Your task to perform on an android device: add a contact in the contacts app Image 0: 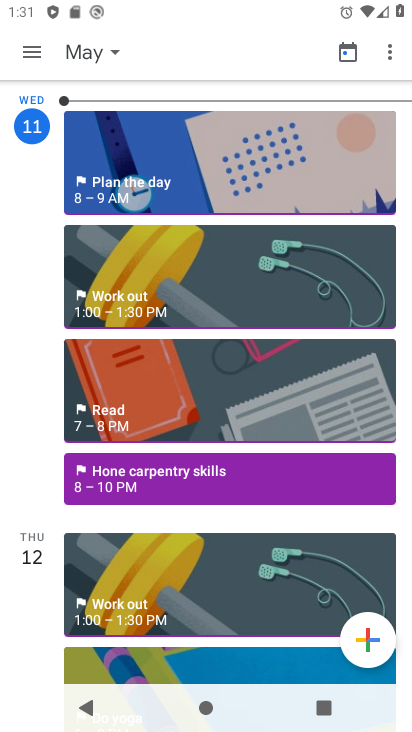
Step 0: press home button
Your task to perform on an android device: add a contact in the contacts app Image 1: 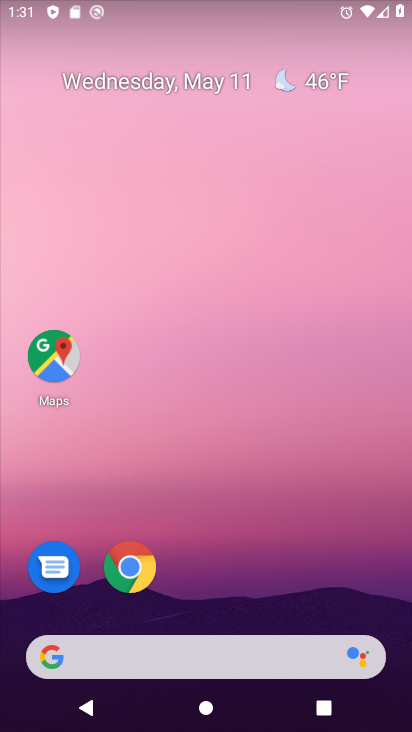
Step 1: drag from (227, 624) to (142, 7)
Your task to perform on an android device: add a contact in the contacts app Image 2: 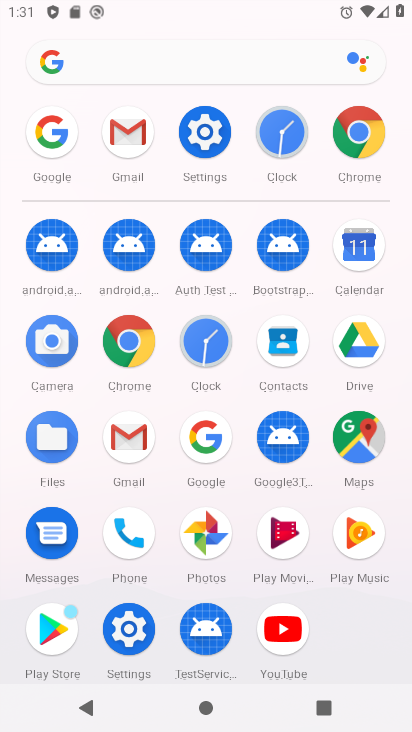
Step 2: click (133, 537)
Your task to perform on an android device: add a contact in the contacts app Image 3: 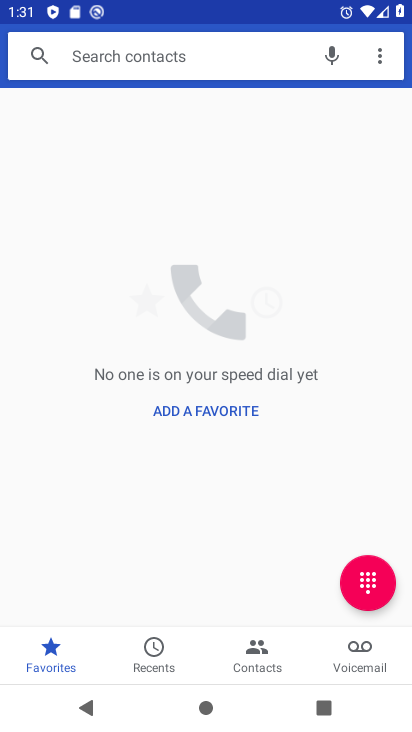
Step 3: click (265, 649)
Your task to perform on an android device: add a contact in the contacts app Image 4: 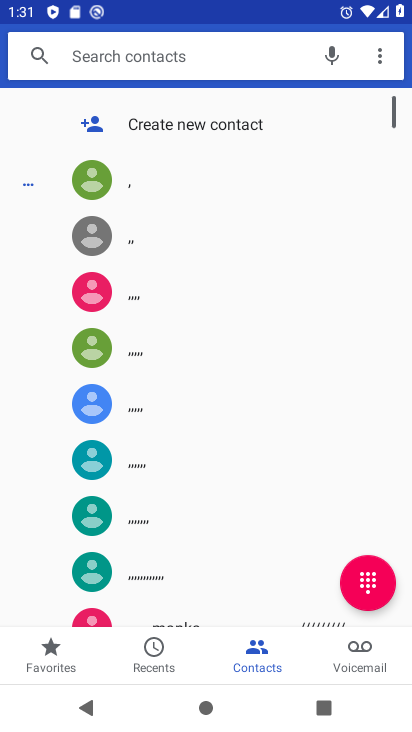
Step 4: task complete